Your task to perform on an android device: refresh tabs in the chrome app Image 0: 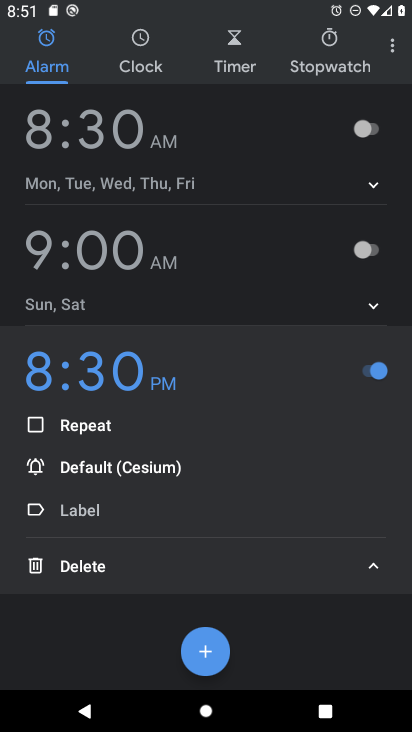
Step 0: press home button
Your task to perform on an android device: refresh tabs in the chrome app Image 1: 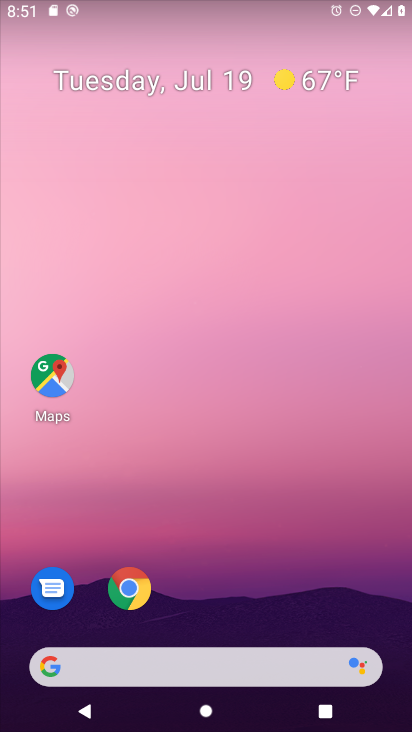
Step 1: drag from (316, 586) to (335, 54)
Your task to perform on an android device: refresh tabs in the chrome app Image 2: 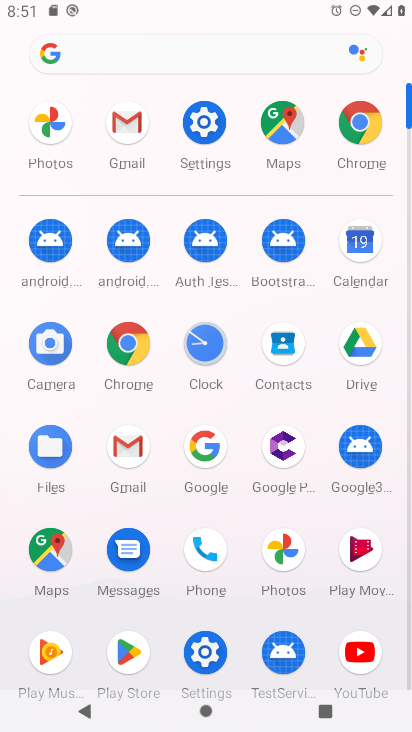
Step 2: click (138, 342)
Your task to perform on an android device: refresh tabs in the chrome app Image 3: 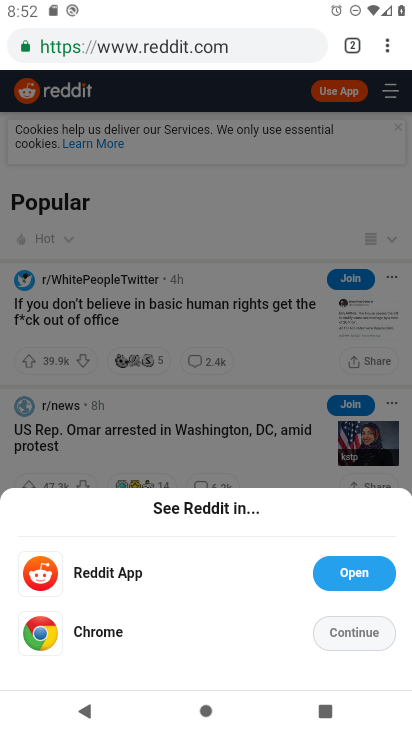
Step 3: click (388, 46)
Your task to perform on an android device: refresh tabs in the chrome app Image 4: 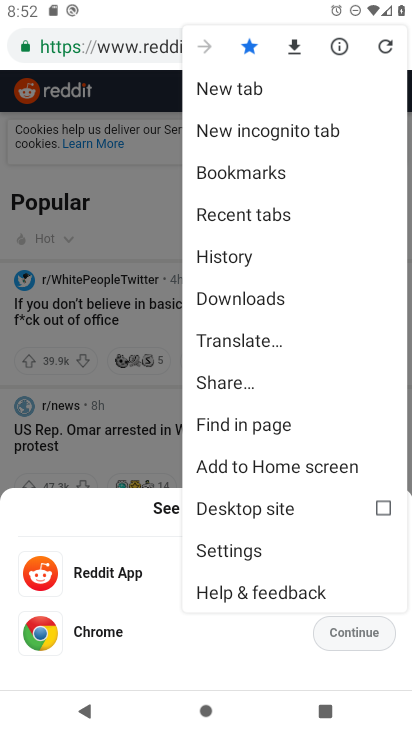
Step 4: click (388, 46)
Your task to perform on an android device: refresh tabs in the chrome app Image 5: 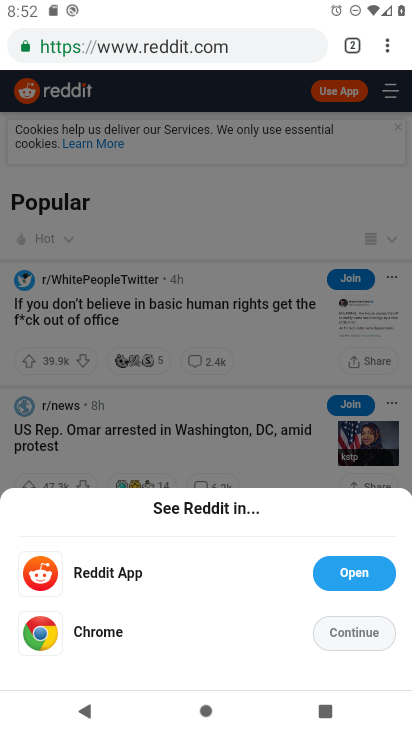
Step 5: task complete